Your task to perform on an android device: Open calendar and show me the third week of next month Image 0: 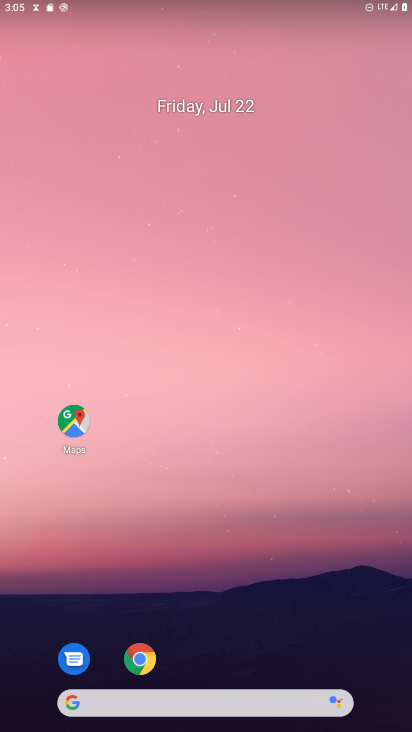
Step 0: drag from (205, 587) to (310, 118)
Your task to perform on an android device: Open calendar and show me the third week of next month Image 1: 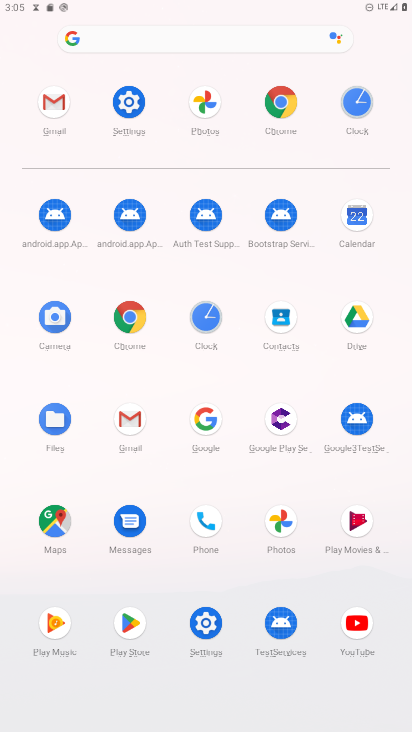
Step 1: click (350, 226)
Your task to perform on an android device: Open calendar and show me the third week of next month Image 2: 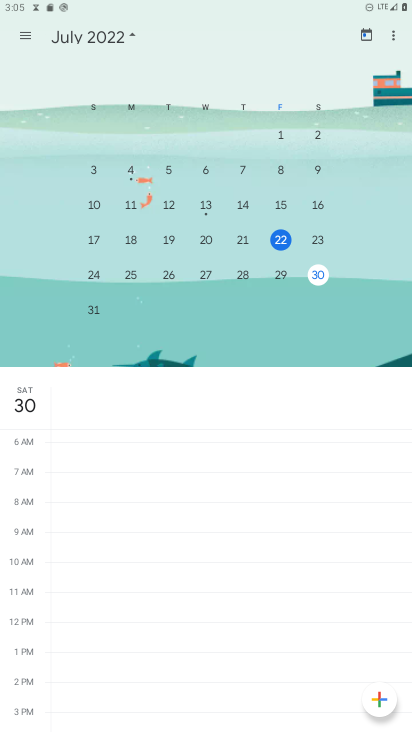
Step 2: drag from (311, 210) to (7, 246)
Your task to perform on an android device: Open calendar and show me the third week of next month Image 3: 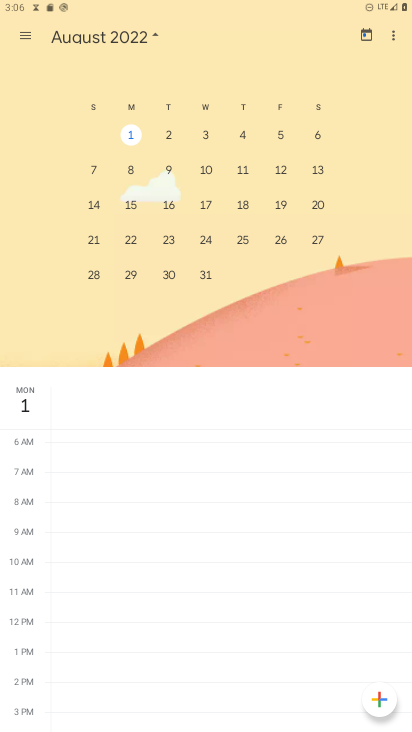
Step 3: click (85, 245)
Your task to perform on an android device: Open calendar and show me the third week of next month Image 4: 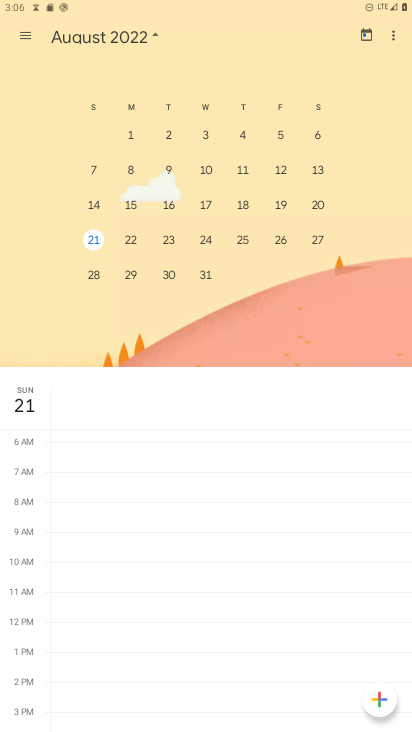
Step 4: task complete